Your task to perform on an android device: turn off location Image 0: 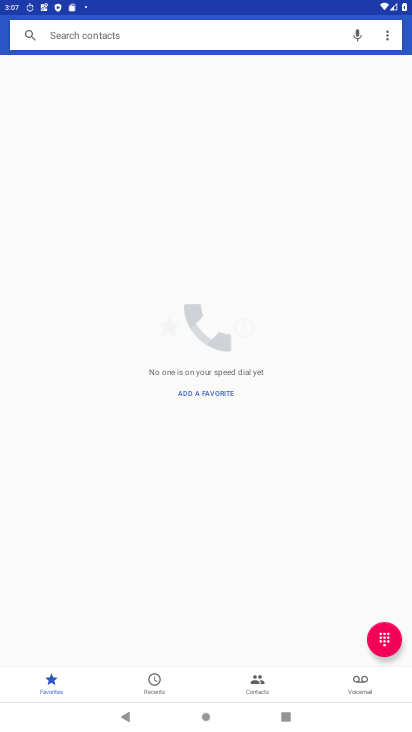
Step 0: press home button
Your task to perform on an android device: turn off location Image 1: 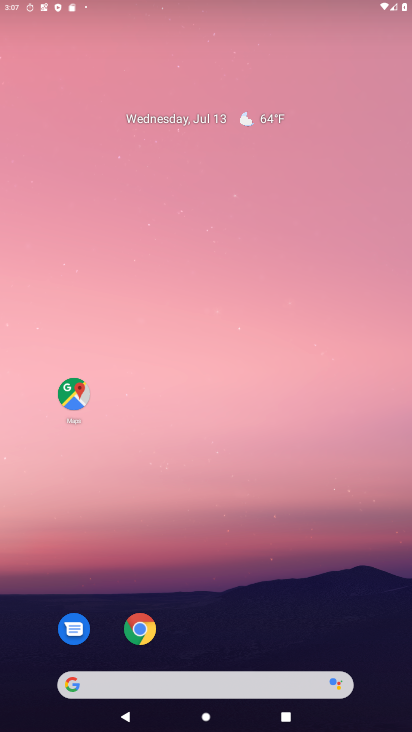
Step 1: drag from (225, 672) to (321, 15)
Your task to perform on an android device: turn off location Image 2: 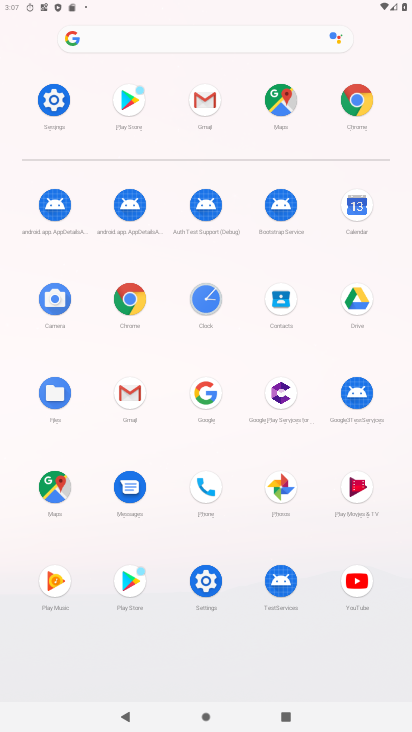
Step 2: click (56, 90)
Your task to perform on an android device: turn off location Image 3: 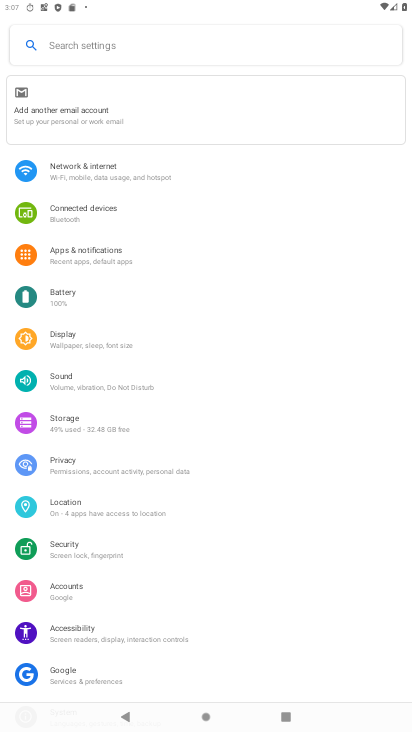
Step 3: click (90, 513)
Your task to perform on an android device: turn off location Image 4: 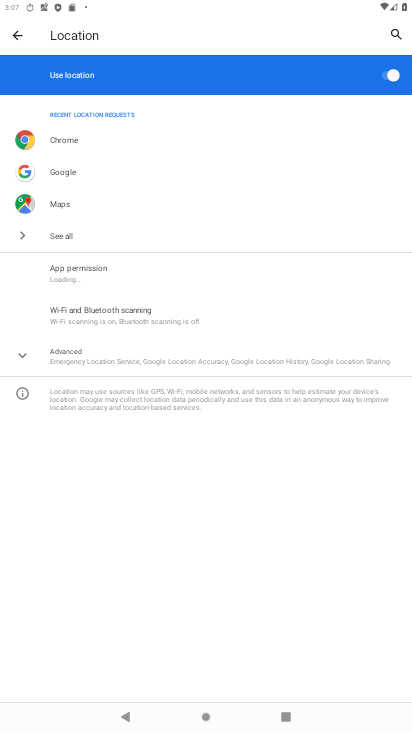
Step 4: click (388, 69)
Your task to perform on an android device: turn off location Image 5: 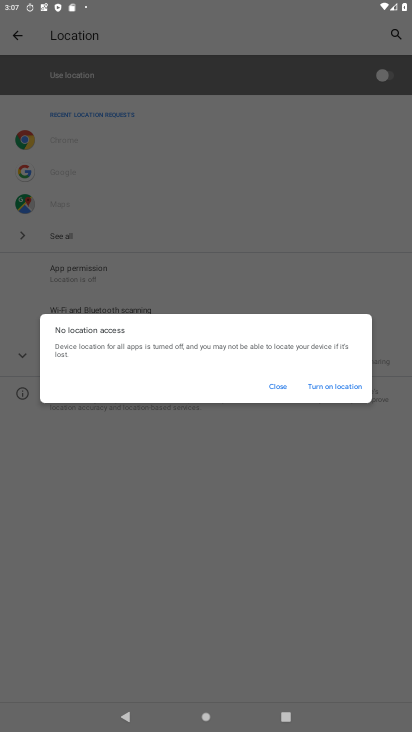
Step 5: task complete